Your task to perform on an android device: Go to display settings Image 0: 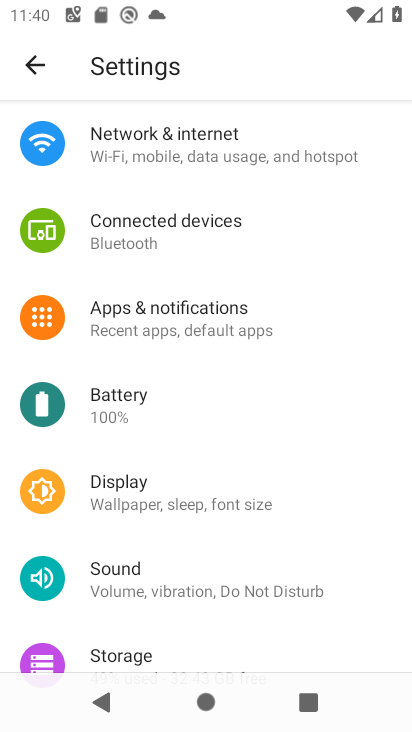
Step 0: click (107, 490)
Your task to perform on an android device: Go to display settings Image 1: 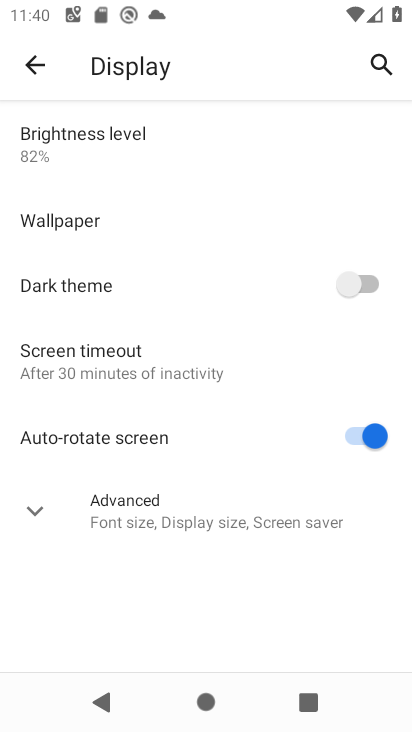
Step 1: task complete